Your task to perform on an android device: turn off data saver in the chrome app Image 0: 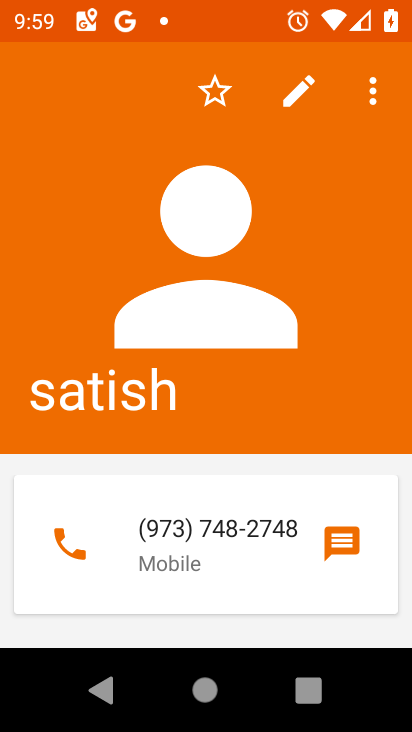
Step 0: press home button
Your task to perform on an android device: turn off data saver in the chrome app Image 1: 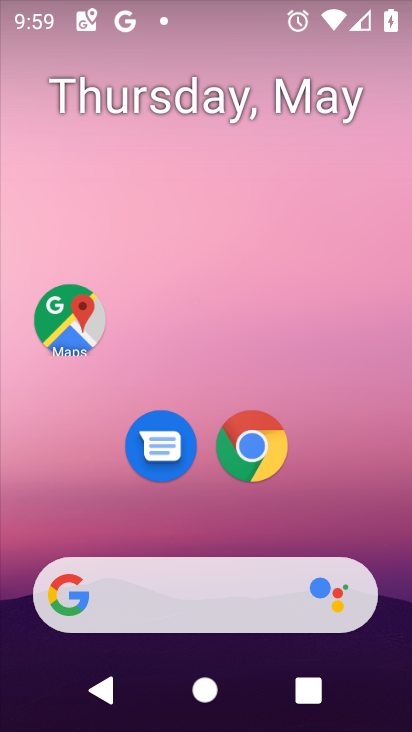
Step 1: drag from (378, 507) to (343, 127)
Your task to perform on an android device: turn off data saver in the chrome app Image 2: 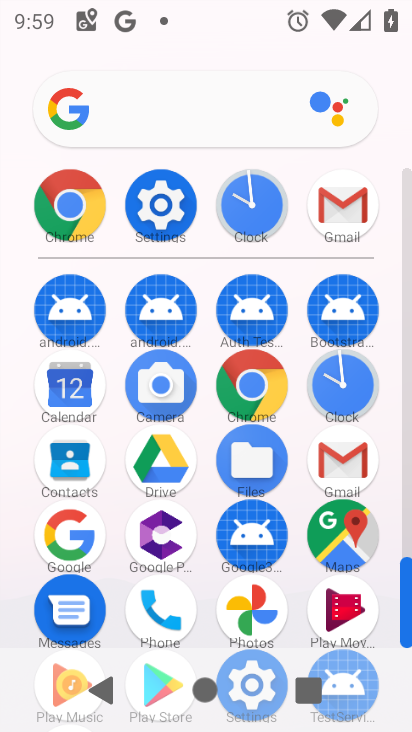
Step 2: click (235, 372)
Your task to perform on an android device: turn off data saver in the chrome app Image 3: 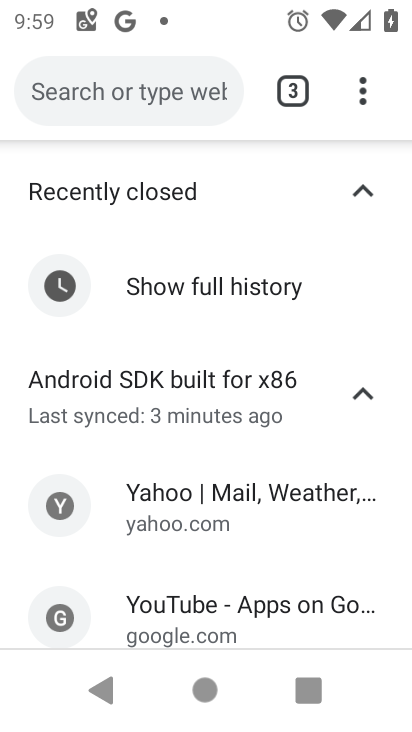
Step 3: drag from (363, 104) to (187, 483)
Your task to perform on an android device: turn off data saver in the chrome app Image 4: 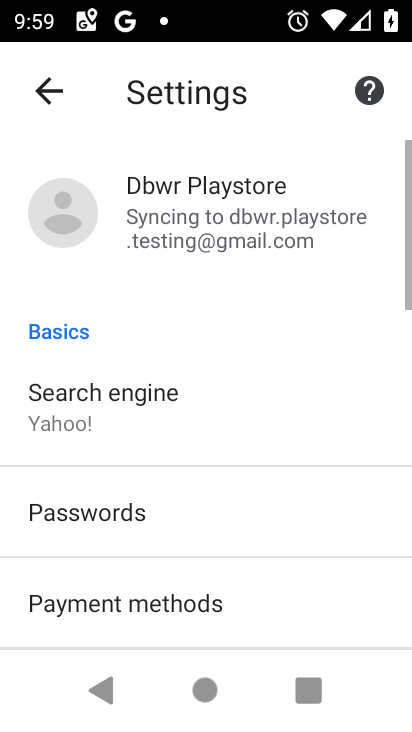
Step 4: drag from (272, 617) to (277, 247)
Your task to perform on an android device: turn off data saver in the chrome app Image 5: 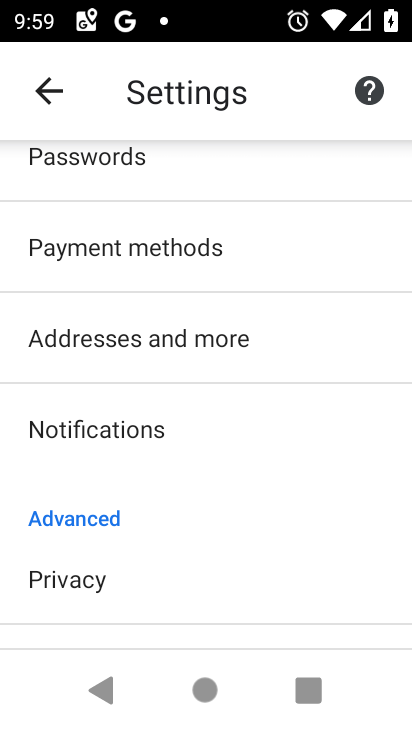
Step 5: drag from (316, 573) to (302, 218)
Your task to perform on an android device: turn off data saver in the chrome app Image 6: 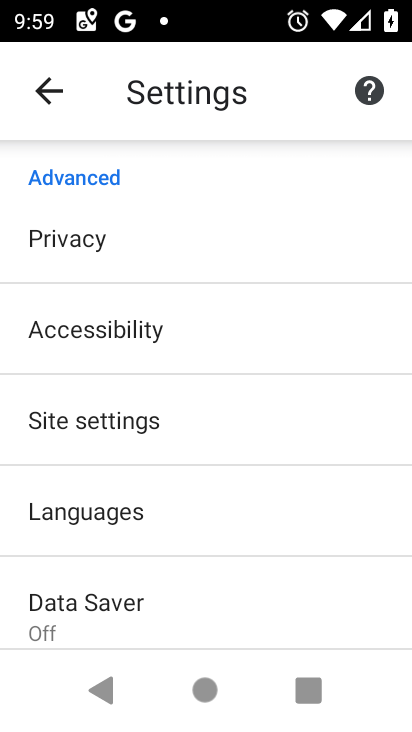
Step 6: click (134, 607)
Your task to perform on an android device: turn off data saver in the chrome app Image 7: 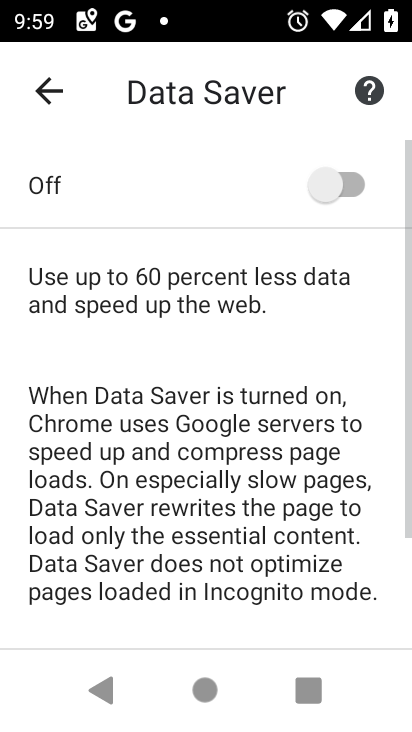
Step 7: task complete